Your task to perform on an android device: delete browsing data in the chrome app Image 0: 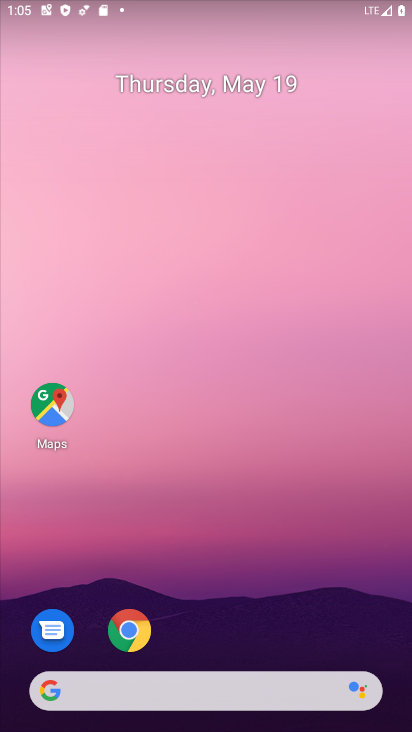
Step 0: click (138, 631)
Your task to perform on an android device: delete browsing data in the chrome app Image 1: 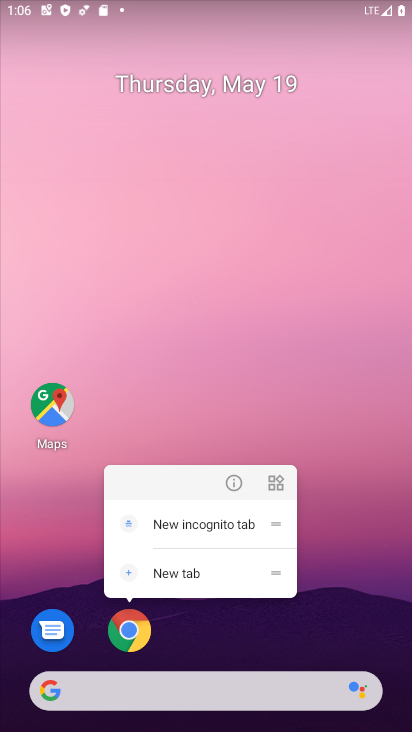
Step 1: click (122, 622)
Your task to perform on an android device: delete browsing data in the chrome app Image 2: 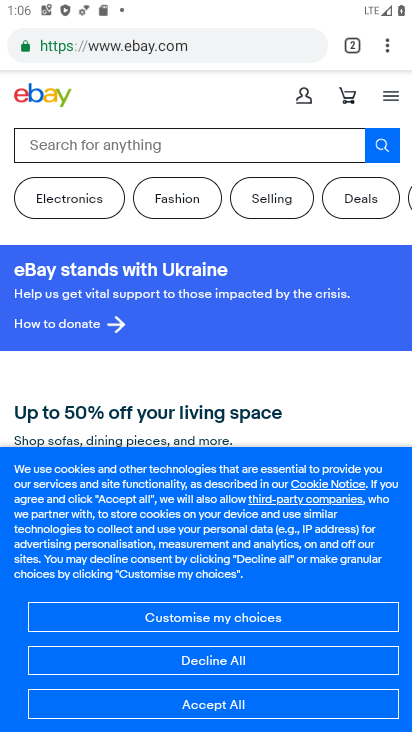
Step 2: click (393, 54)
Your task to perform on an android device: delete browsing data in the chrome app Image 3: 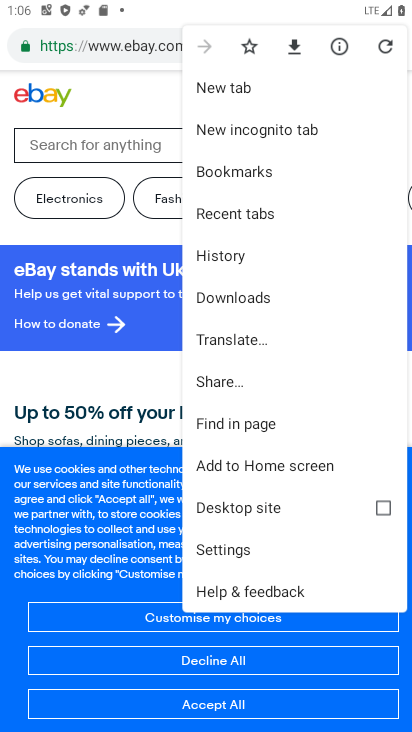
Step 3: click (222, 254)
Your task to perform on an android device: delete browsing data in the chrome app Image 4: 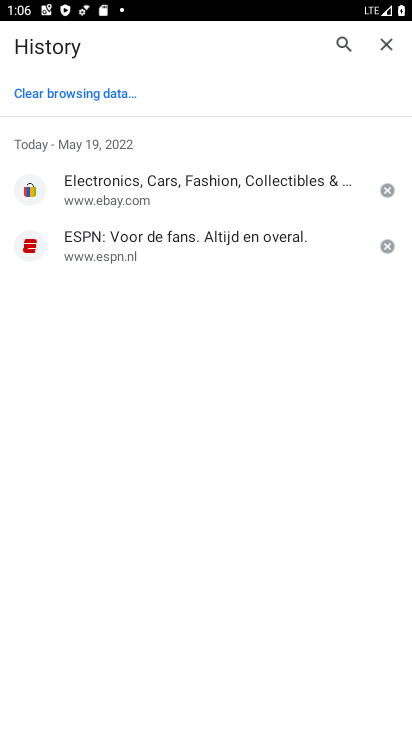
Step 4: click (58, 96)
Your task to perform on an android device: delete browsing data in the chrome app Image 5: 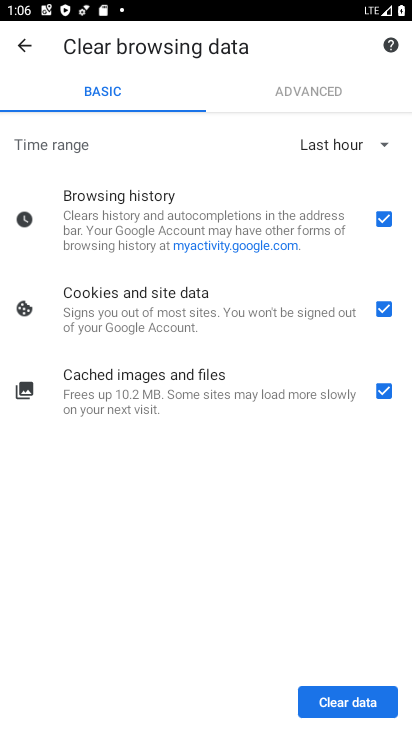
Step 5: click (375, 691)
Your task to perform on an android device: delete browsing data in the chrome app Image 6: 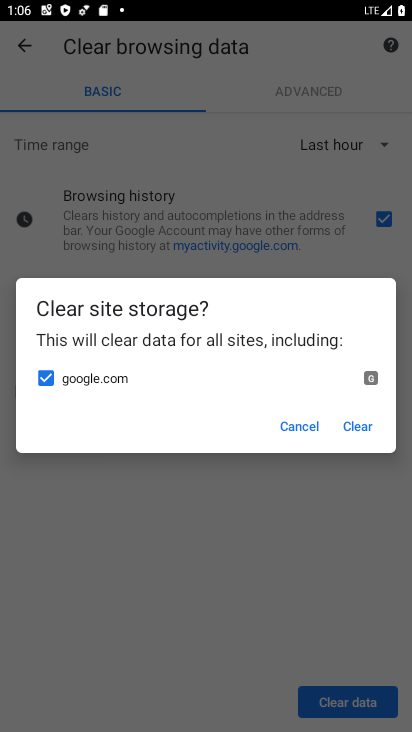
Step 6: click (369, 423)
Your task to perform on an android device: delete browsing data in the chrome app Image 7: 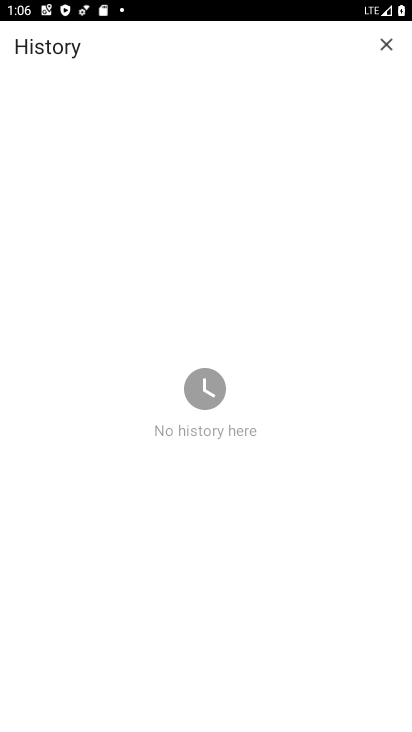
Step 7: task complete